Your task to perform on an android device: Open Google Image 0: 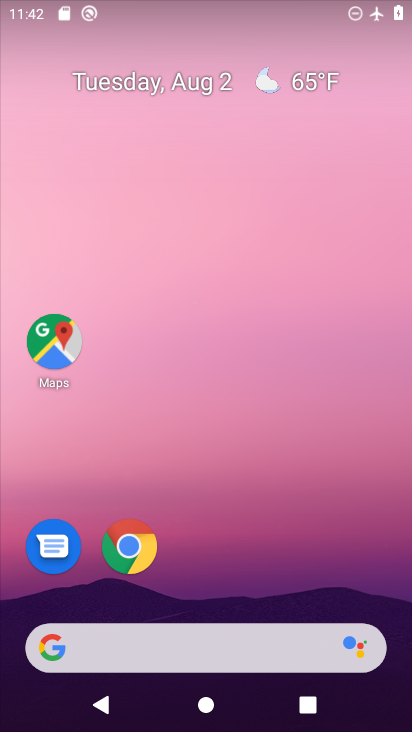
Step 0: drag from (206, 554) to (198, 112)
Your task to perform on an android device: Open Google Image 1: 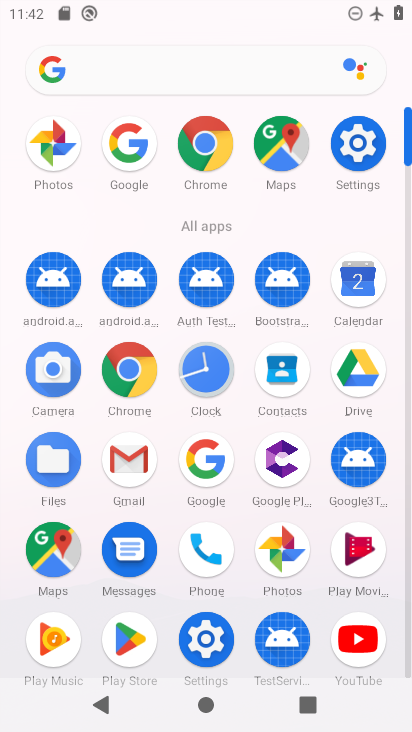
Step 1: click (147, 145)
Your task to perform on an android device: Open Google Image 2: 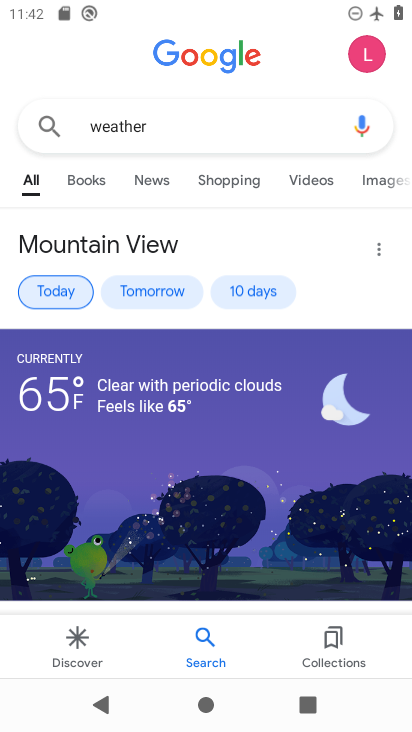
Step 2: task complete